Your task to perform on an android device: clear history in the chrome app Image 0: 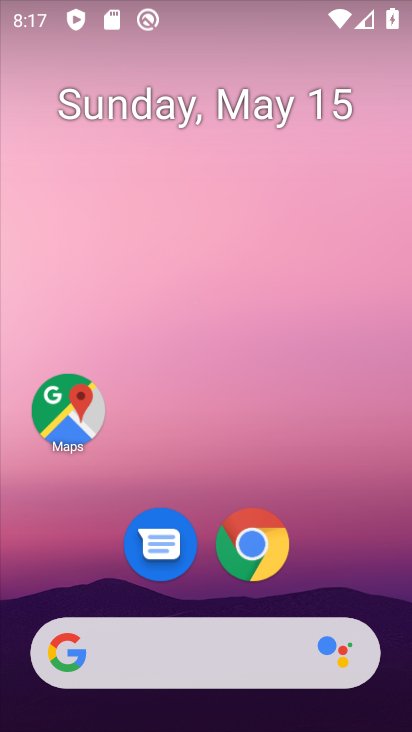
Step 0: click (244, 543)
Your task to perform on an android device: clear history in the chrome app Image 1: 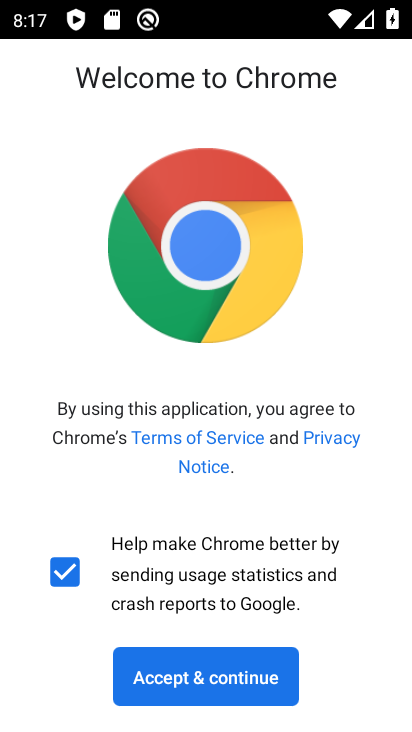
Step 1: click (240, 661)
Your task to perform on an android device: clear history in the chrome app Image 2: 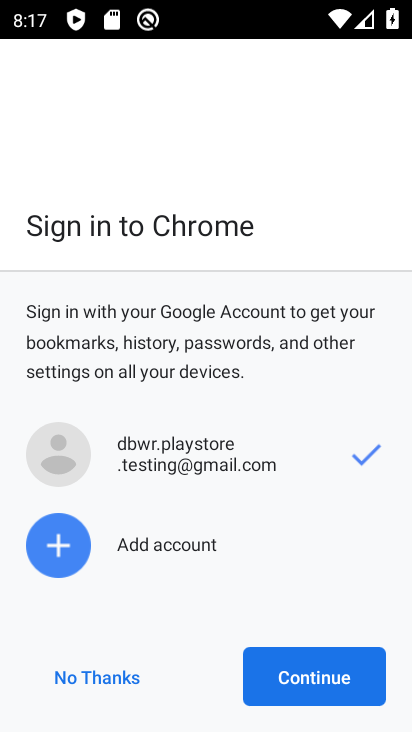
Step 2: click (327, 693)
Your task to perform on an android device: clear history in the chrome app Image 3: 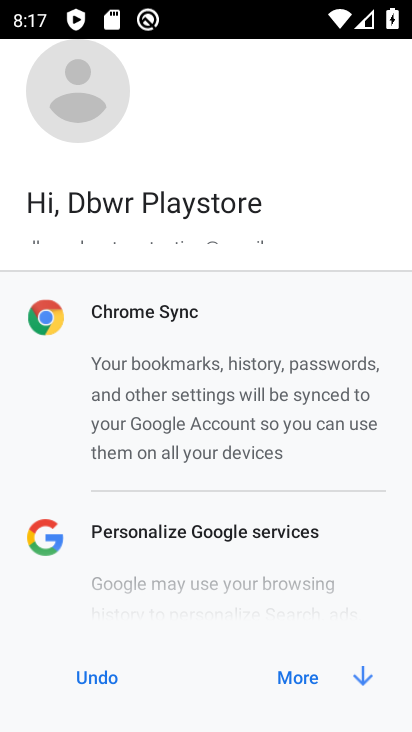
Step 3: click (328, 687)
Your task to perform on an android device: clear history in the chrome app Image 4: 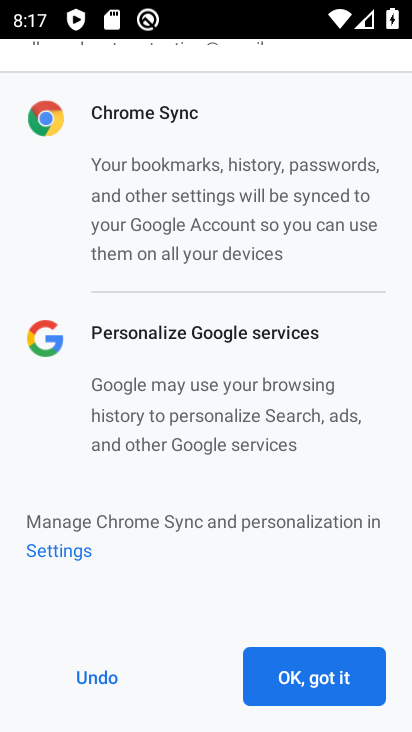
Step 4: click (321, 675)
Your task to perform on an android device: clear history in the chrome app Image 5: 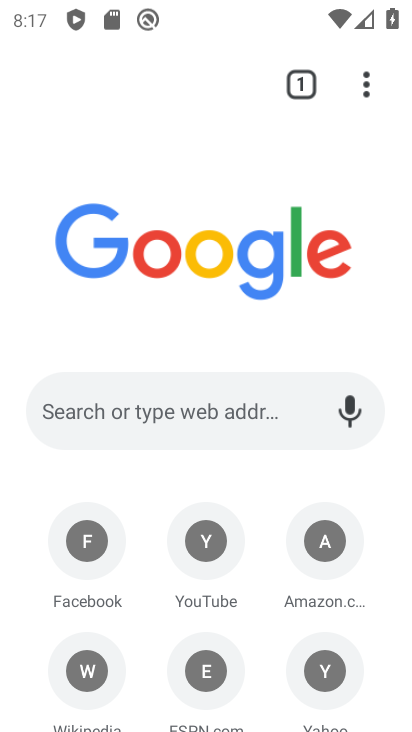
Step 5: click (369, 88)
Your task to perform on an android device: clear history in the chrome app Image 6: 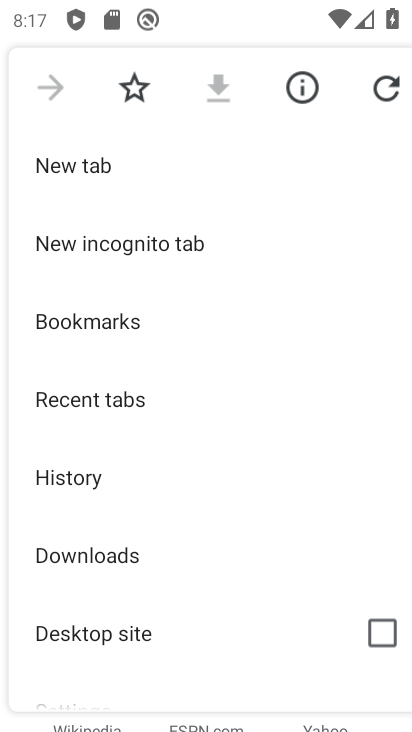
Step 6: click (178, 473)
Your task to perform on an android device: clear history in the chrome app Image 7: 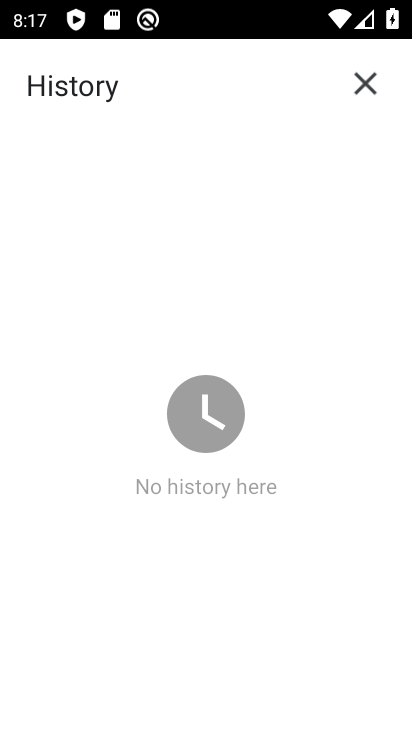
Step 7: task complete